Your task to perform on an android device: Go to ESPN.com Image 0: 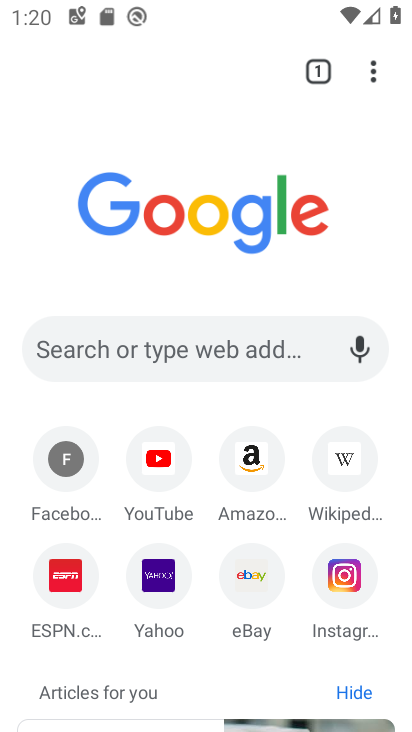
Step 0: click (55, 578)
Your task to perform on an android device: Go to ESPN.com Image 1: 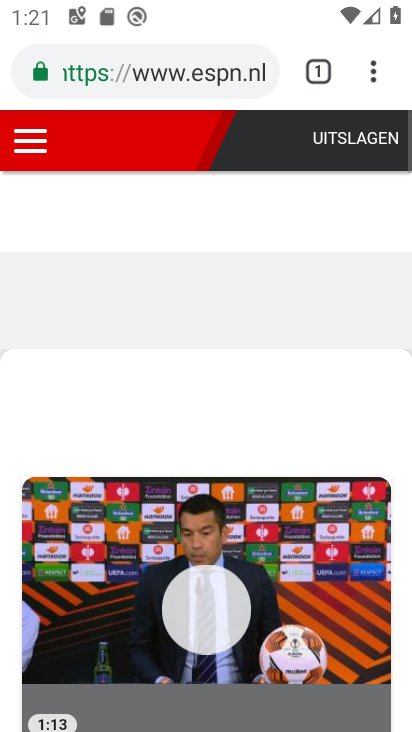
Step 1: task complete